Your task to perform on an android device: open app "Adobe Acrobat Reader: Edit PDF" Image 0: 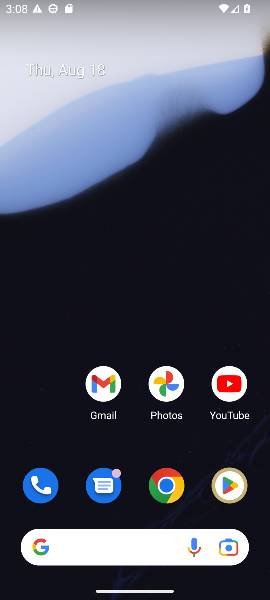
Step 0: click (228, 481)
Your task to perform on an android device: open app "Adobe Acrobat Reader: Edit PDF" Image 1: 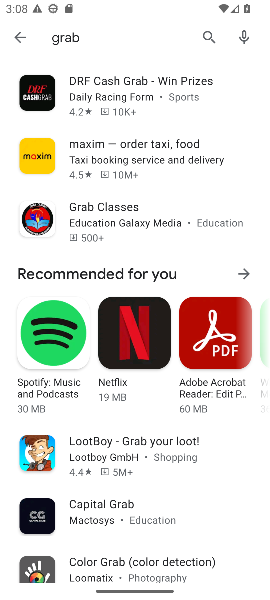
Step 1: click (212, 41)
Your task to perform on an android device: open app "Adobe Acrobat Reader: Edit PDF" Image 2: 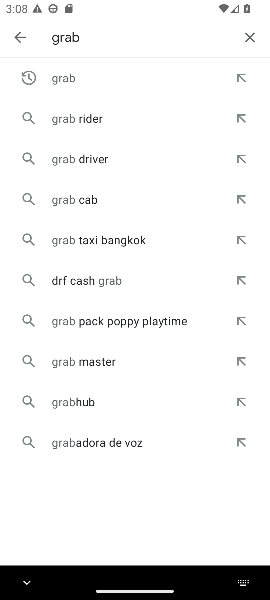
Step 2: click (250, 33)
Your task to perform on an android device: open app "Adobe Acrobat Reader: Edit PDF" Image 3: 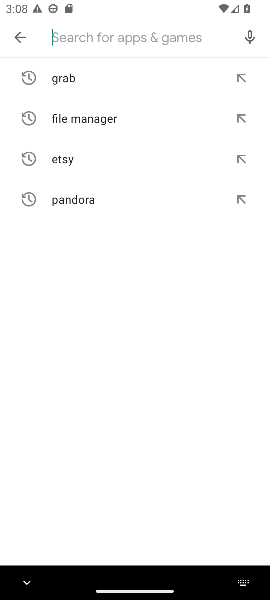
Step 3: click (98, 41)
Your task to perform on an android device: open app "Adobe Acrobat Reader: Edit PDF" Image 4: 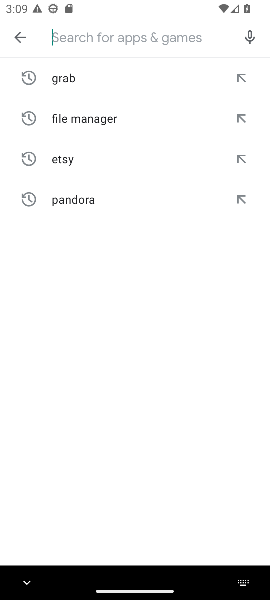
Step 4: type "adobe acrobat"
Your task to perform on an android device: open app "Adobe Acrobat Reader: Edit PDF" Image 5: 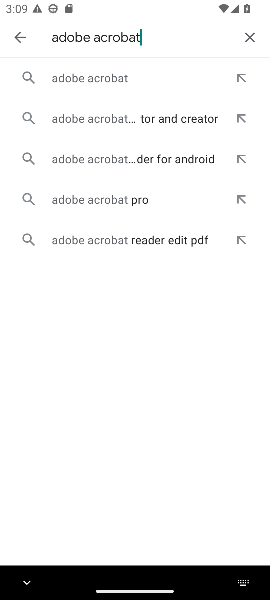
Step 5: click (99, 79)
Your task to perform on an android device: open app "Adobe Acrobat Reader: Edit PDF" Image 6: 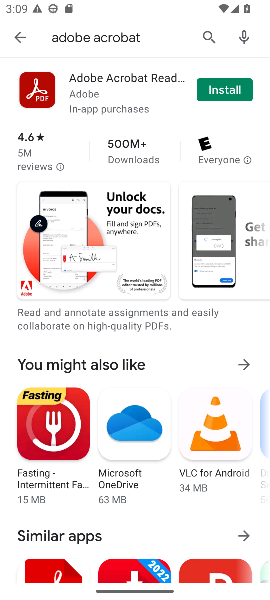
Step 6: task complete